Your task to perform on an android device: toggle airplane mode Image 0: 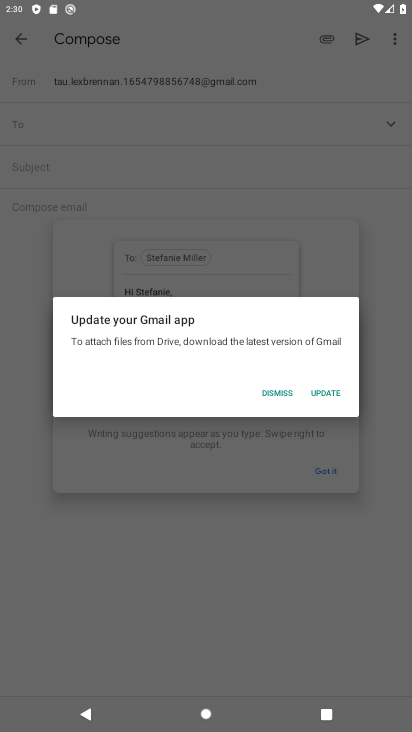
Step 0: press home button
Your task to perform on an android device: toggle airplane mode Image 1: 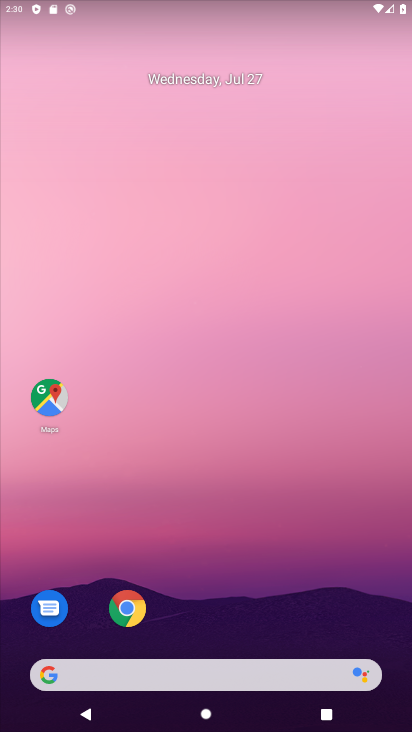
Step 1: drag from (224, 605) to (217, 127)
Your task to perform on an android device: toggle airplane mode Image 2: 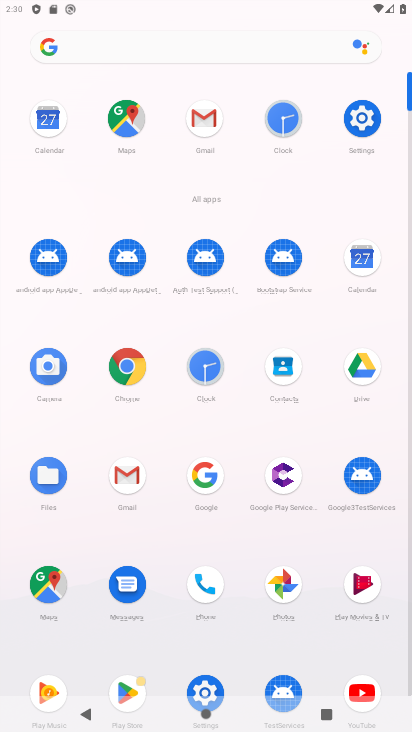
Step 2: click (366, 121)
Your task to perform on an android device: toggle airplane mode Image 3: 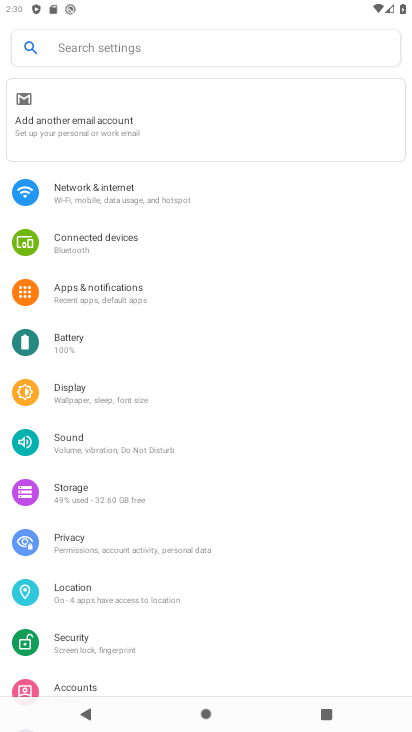
Step 3: task complete